Your task to perform on an android device: Search for all emails from 'tau.parasaurolbr.1654798856750@gmail.com' Image 0: 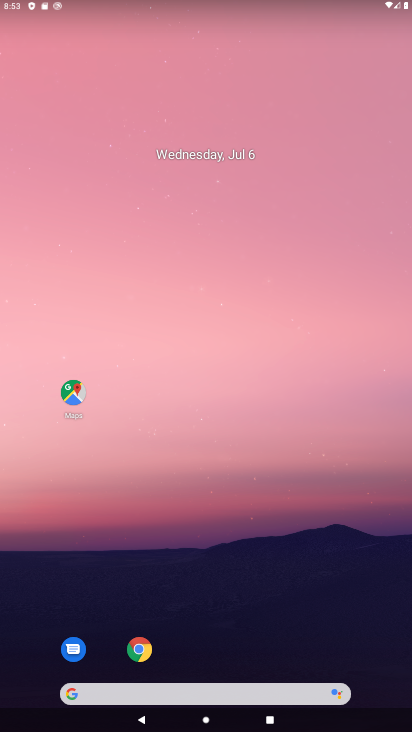
Step 0: drag from (366, 603) to (381, 71)
Your task to perform on an android device: Search for all emails from 'tau.parasaurolbr.1654798856750@gmail.com' Image 1: 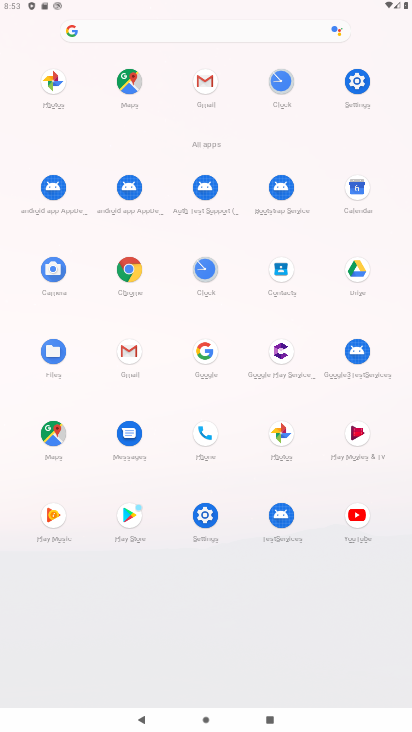
Step 1: click (208, 99)
Your task to perform on an android device: Search for all emails from 'tau.parasaurolbr.1654798856750@gmail.com' Image 2: 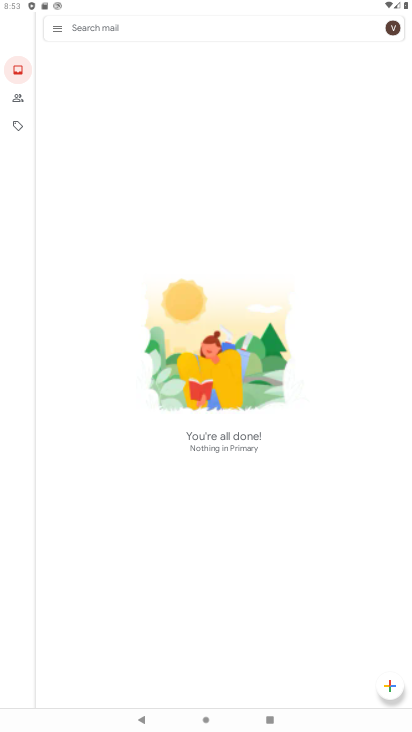
Step 2: task complete